Your task to perform on an android device: turn off picture-in-picture Image 0: 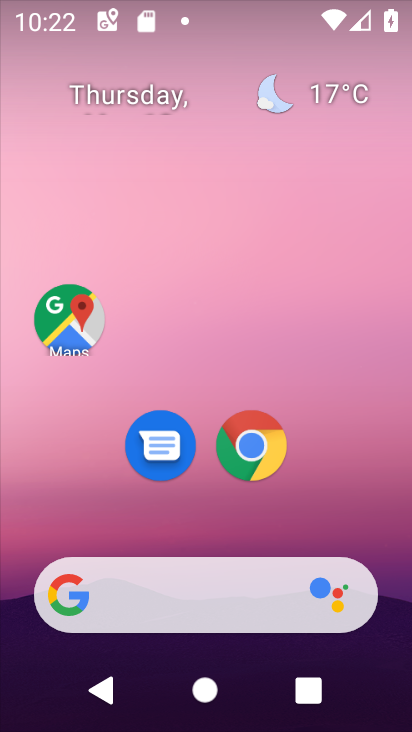
Step 0: drag from (5, 684) to (307, 105)
Your task to perform on an android device: turn off picture-in-picture Image 1: 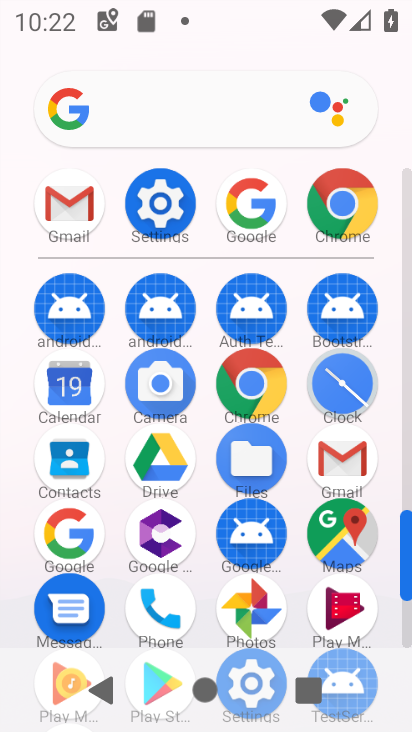
Step 1: click (173, 219)
Your task to perform on an android device: turn off picture-in-picture Image 2: 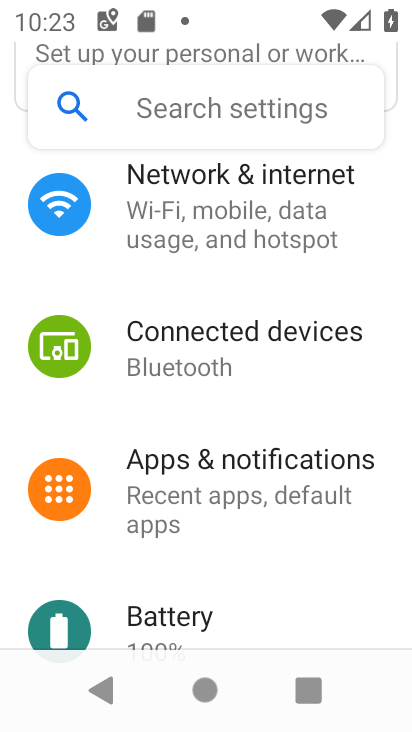
Step 2: drag from (183, 598) to (237, 176)
Your task to perform on an android device: turn off picture-in-picture Image 3: 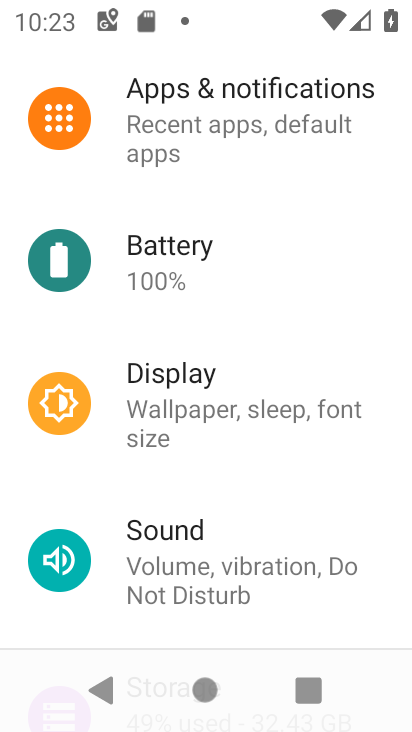
Step 3: click (122, 63)
Your task to perform on an android device: turn off picture-in-picture Image 4: 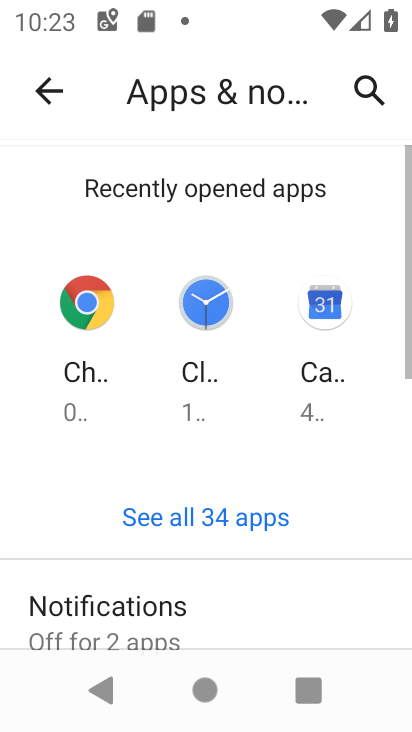
Step 4: drag from (171, 578) to (232, 112)
Your task to perform on an android device: turn off picture-in-picture Image 5: 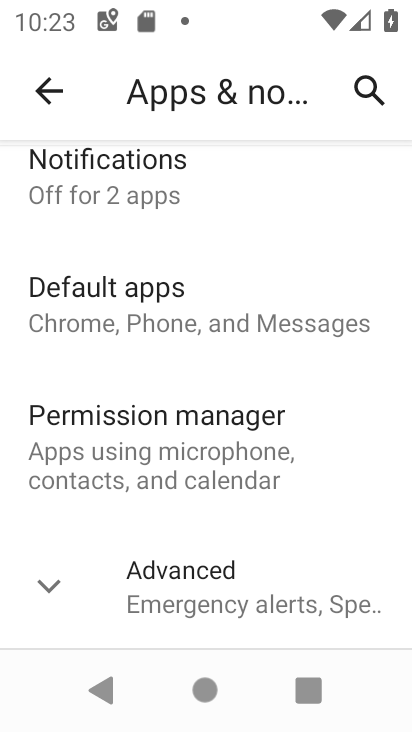
Step 5: drag from (233, 590) to (248, 164)
Your task to perform on an android device: turn off picture-in-picture Image 6: 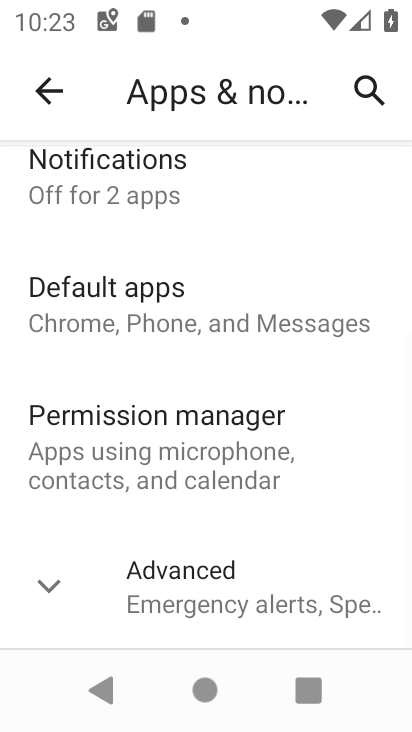
Step 6: click (229, 587)
Your task to perform on an android device: turn off picture-in-picture Image 7: 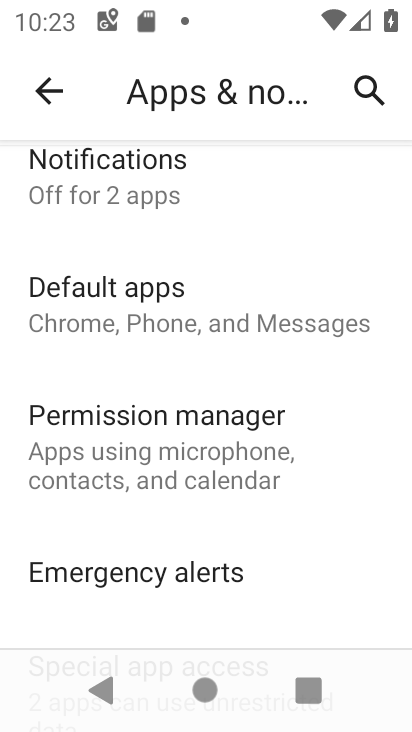
Step 7: drag from (69, 596) to (167, 219)
Your task to perform on an android device: turn off picture-in-picture Image 8: 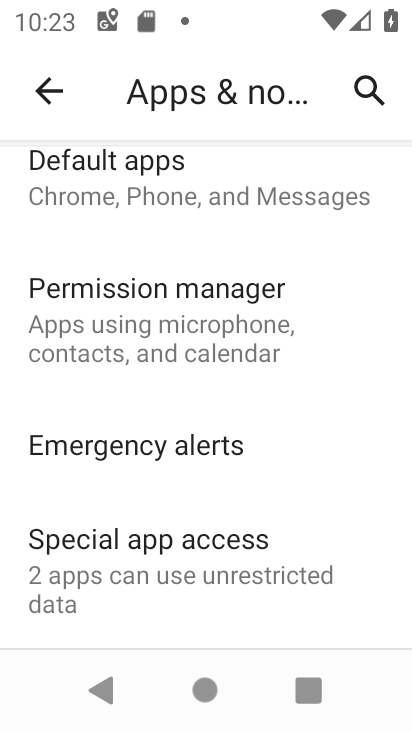
Step 8: click (176, 549)
Your task to perform on an android device: turn off picture-in-picture Image 9: 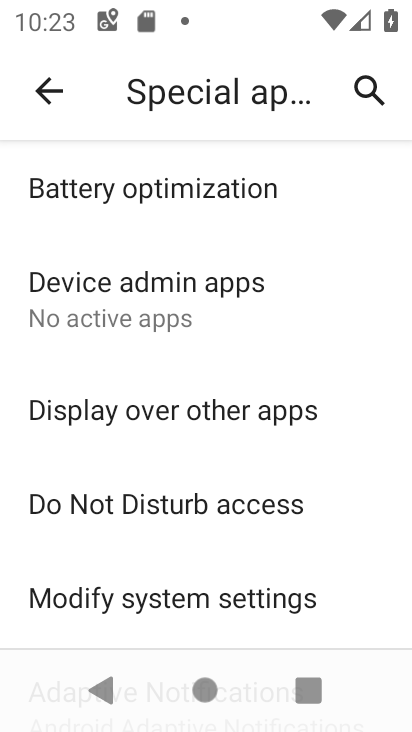
Step 9: drag from (135, 538) to (161, 256)
Your task to perform on an android device: turn off picture-in-picture Image 10: 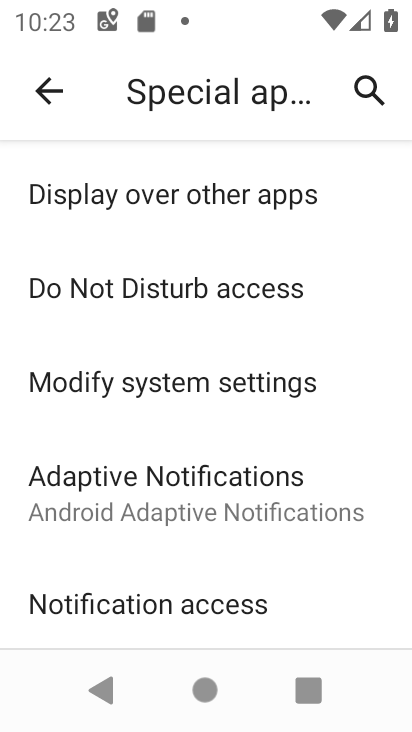
Step 10: drag from (174, 625) to (193, 237)
Your task to perform on an android device: turn off picture-in-picture Image 11: 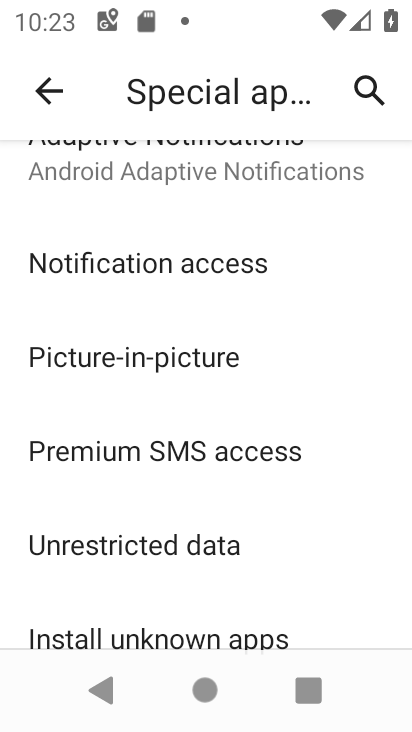
Step 11: click (85, 331)
Your task to perform on an android device: turn off picture-in-picture Image 12: 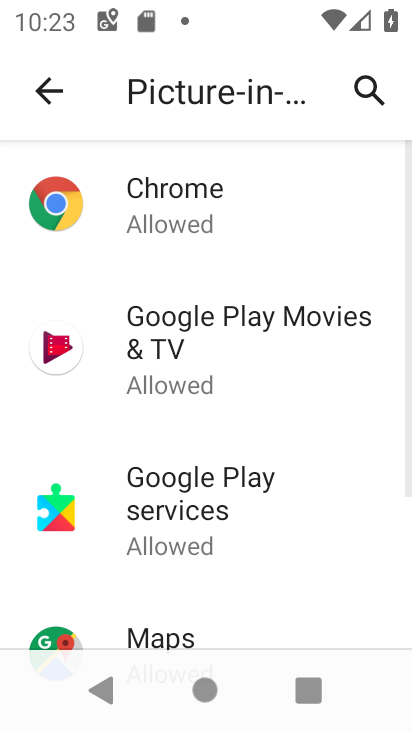
Step 12: click (164, 220)
Your task to perform on an android device: turn off picture-in-picture Image 13: 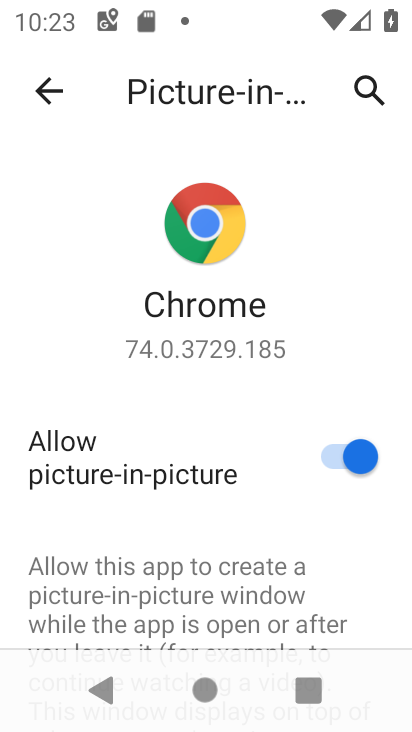
Step 13: click (372, 465)
Your task to perform on an android device: turn off picture-in-picture Image 14: 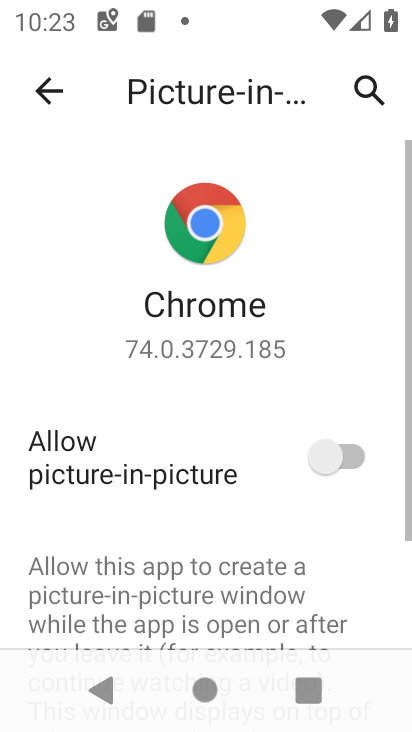
Step 14: task complete